Your task to perform on an android device: open device folders in google photos Image 0: 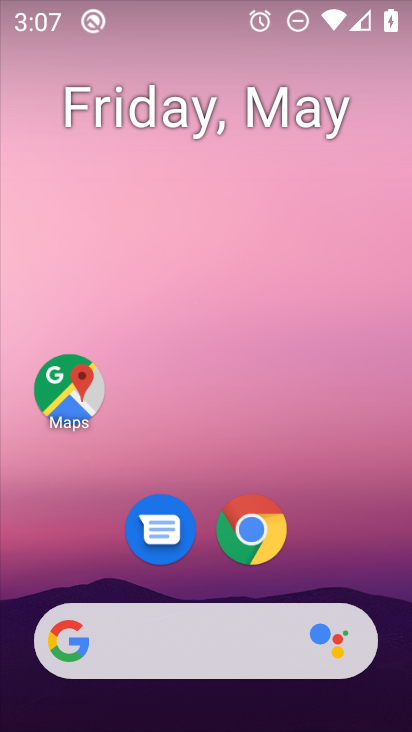
Step 0: drag from (396, 693) to (354, 326)
Your task to perform on an android device: open device folders in google photos Image 1: 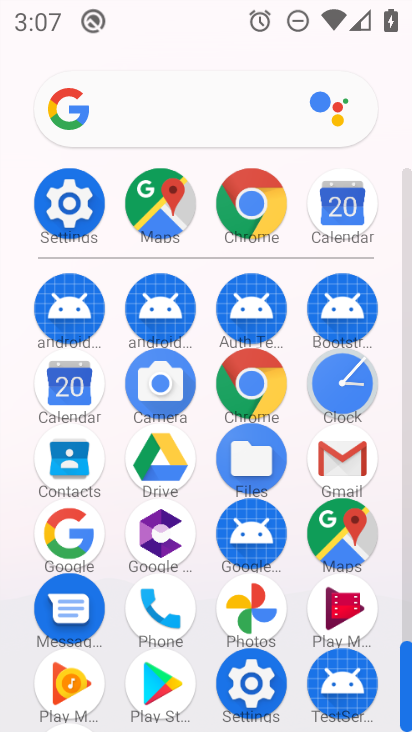
Step 1: click (229, 598)
Your task to perform on an android device: open device folders in google photos Image 2: 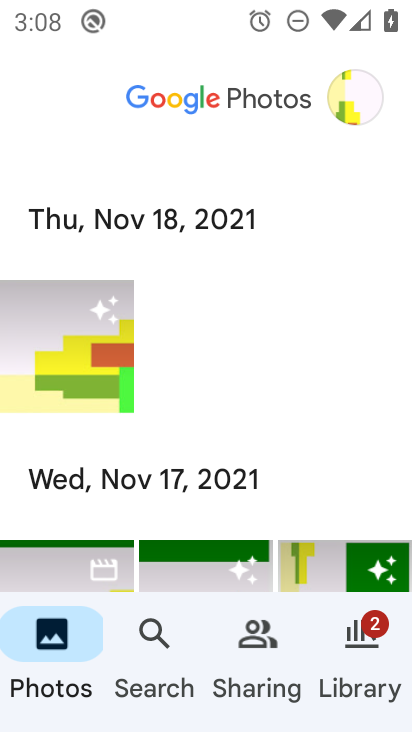
Step 2: task complete